Your task to perform on an android device: What is the recent news? Image 0: 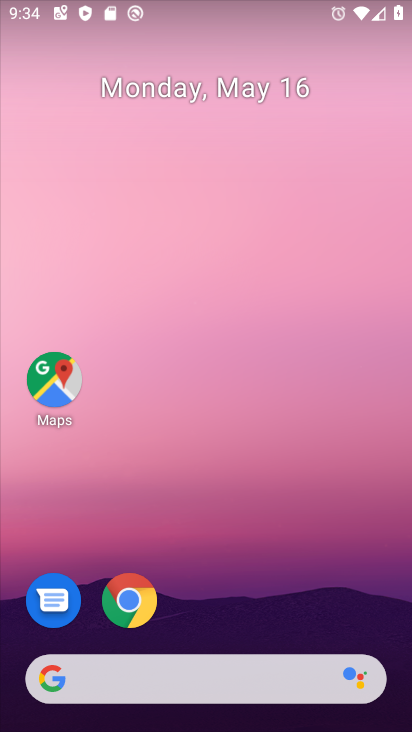
Step 0: drag from (225, 462) to (234, 98)
Your task to perform on an android device: What is the recent news? Image 1: 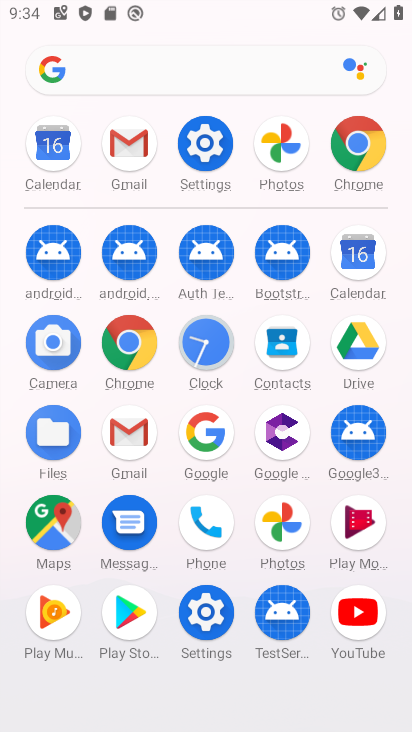
Step 1: click (139, 60)
Your task to perform on an android device: What is the recent news? Image 2: 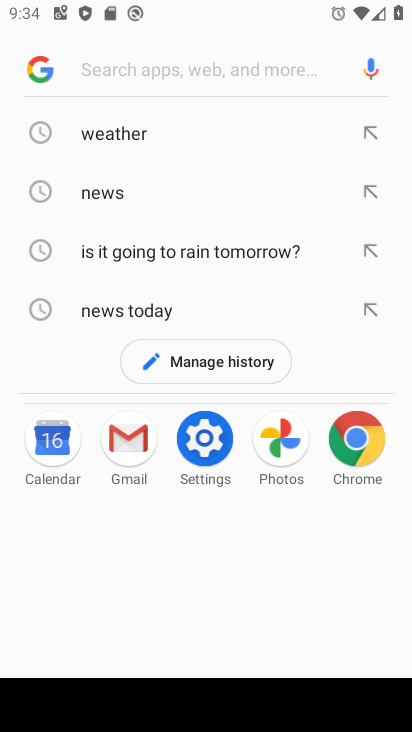
Step 2: type "recent news"
Your task to perform on an android device: What is the recent news? Image 3: 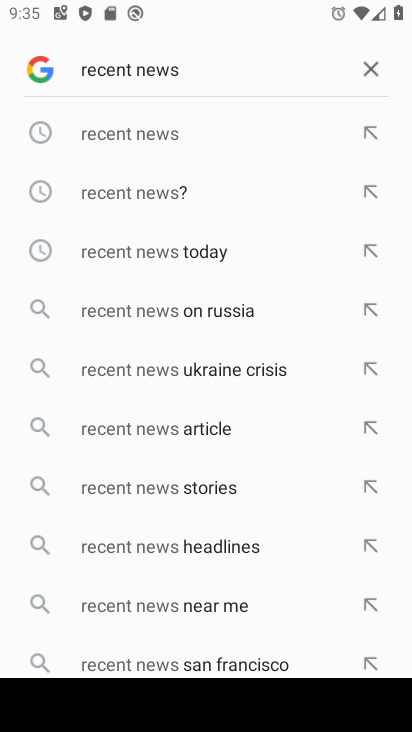
Step 3: click (174, 189)
Your task to perform on an android device: What is the recent news? Image 4: 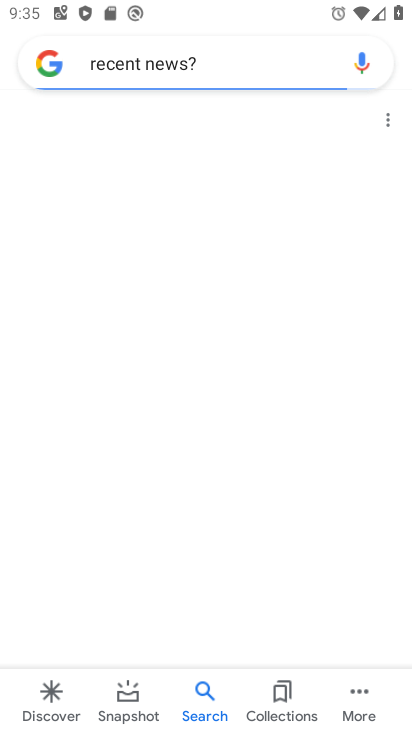
Step 4: task complete